Your task to perform on an android device: Go to wifi settings Image 0: 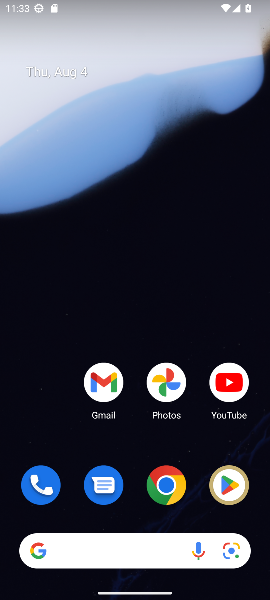
Step 0: drag from (146, 523) to (141, 95)
Your task to perform on an android device: Go to wifi settings Image 1: 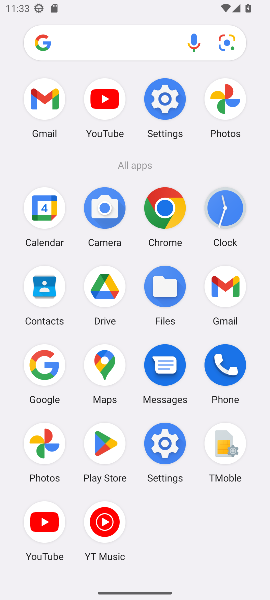
Step 1: click (169, 97)
Your task to perform on an android device: Go to wifi settings Image 2: 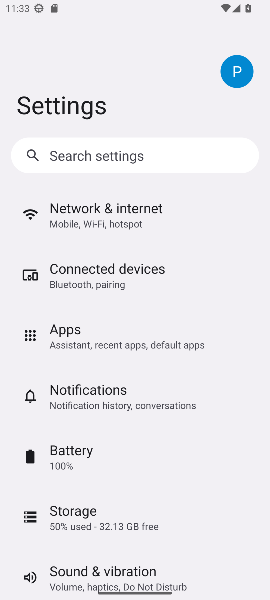
Step 2: click (78, 217)
Your task to perform on an android device: Go to wifi settings Image 3: 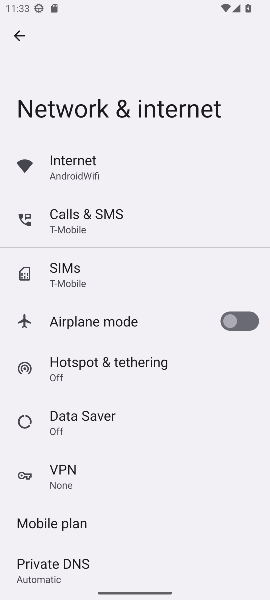
Step 3: click (77, 164)
Your task to perform on an android device: Go to wifi settings Image 4: 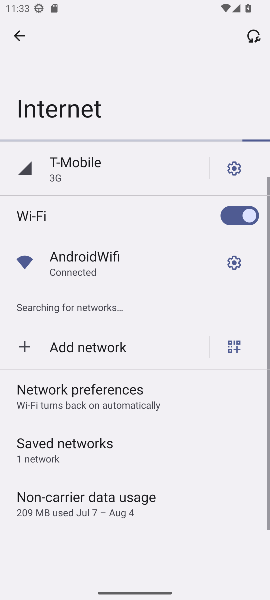
Step 4: task complete